Your task to perform on an android device: open app "Facebook Messenger" Image 0: 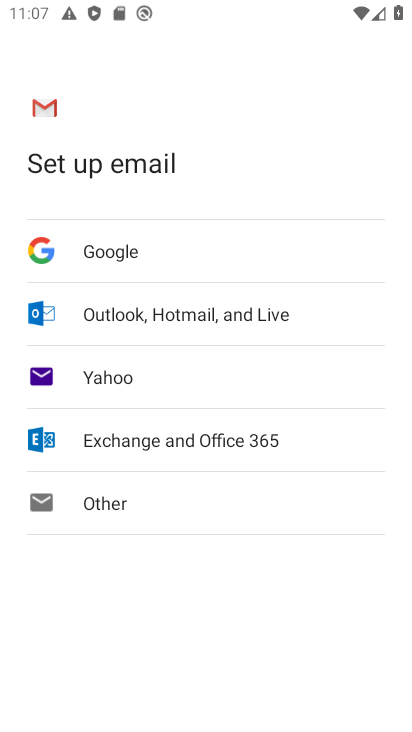
Step 0: press home button
Your task to perform on an android device: open app "Facebook Messenger" Image 1: 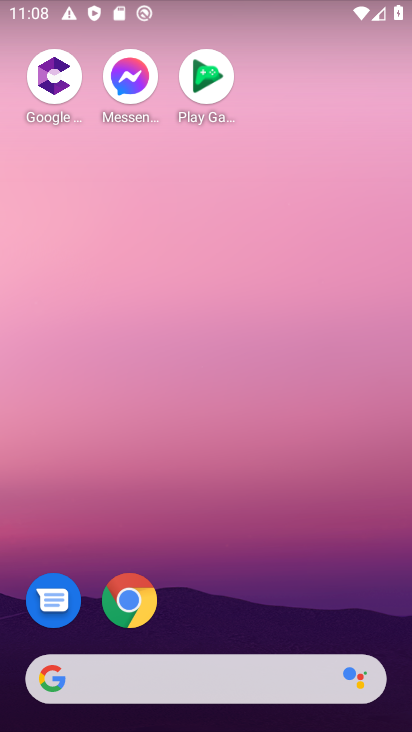
Step 1: drag from (180, 681) to (250, 241)
Your task to perform on an android device: open app "Facebook Messenger" Image 2: 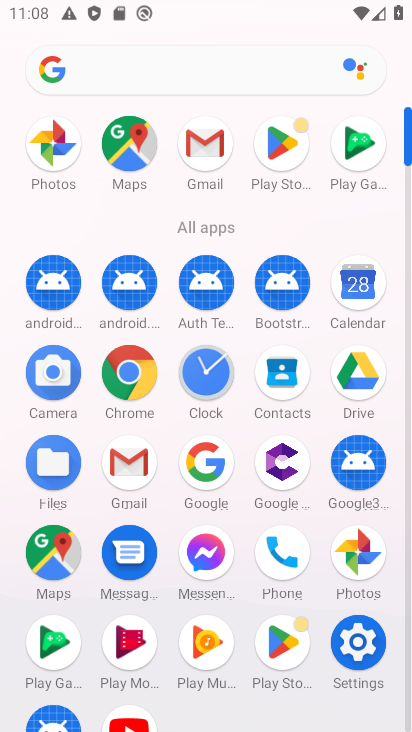
Step 2: click (277, 145)
Your task to perform on an android device: open app "Facebook Messenger" Image 3: 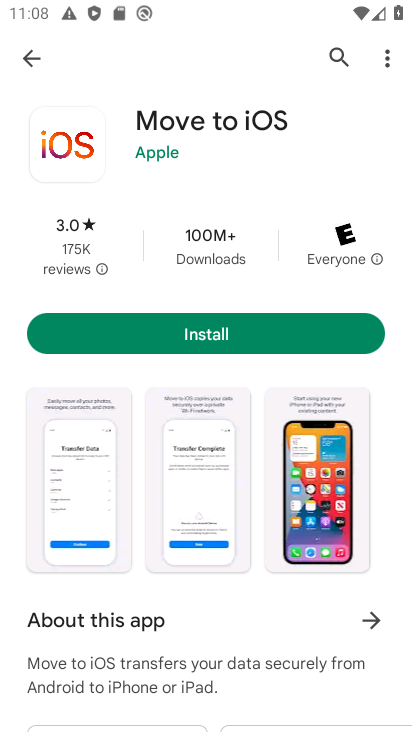
Step 3: click (334, 51)
Your task to perform on an android device: open app "Facebook Messenger" Image 4: 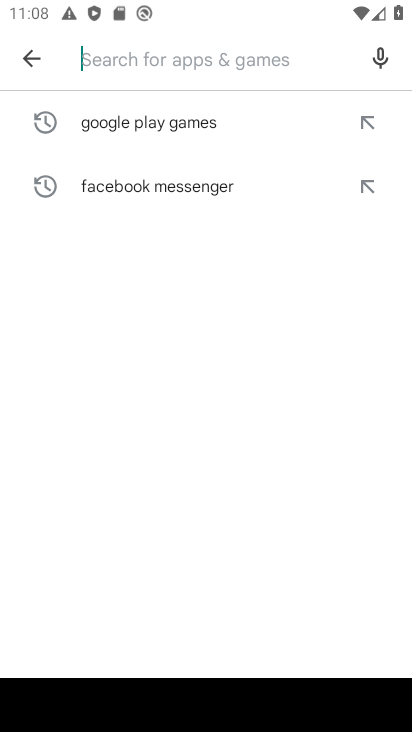
Step 4: click (249, 189)
Your task to perform on an android device: open app "Facebook Messenger" Image 5: 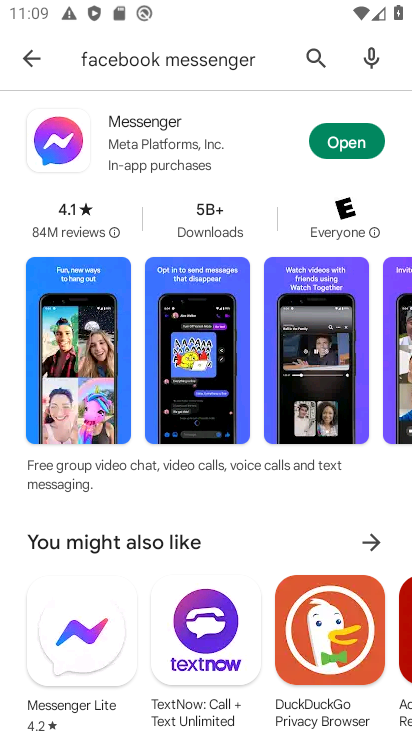
Step 5: click (336, 137)
Your task to perform on an android device: open app "Facebook Messenger" Image 6: 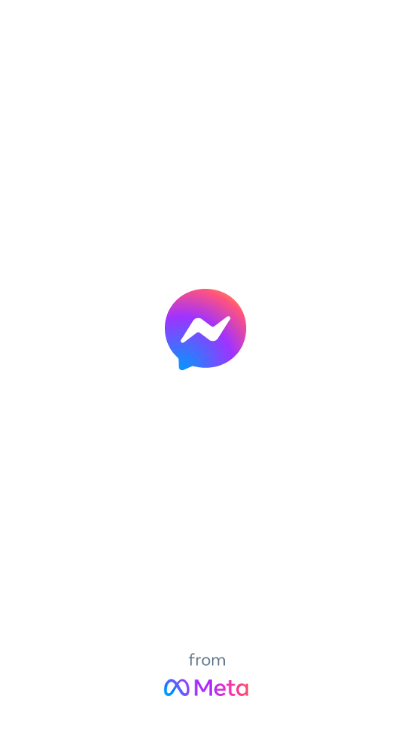
Step 6: task complete